Your task to perform on an android device: Go to battery settings Image 0: 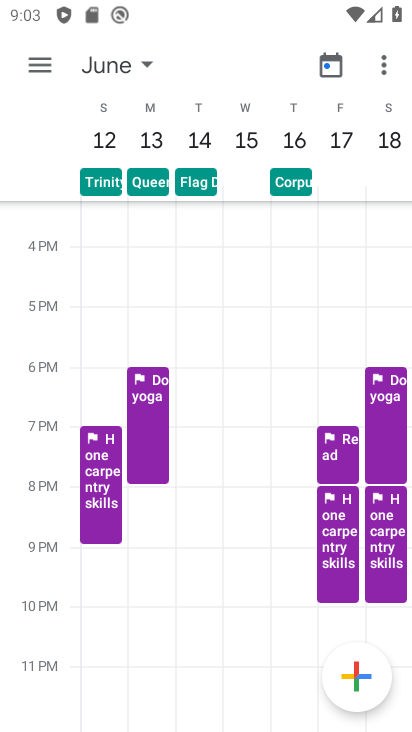
Step 0: press home button
Your task to perform on an android device: Go to battery settings Image 1: 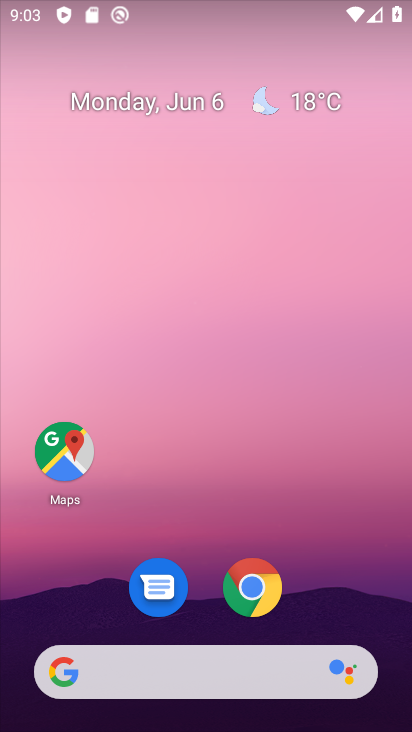
Step 1: drag from (306, 518) to (338, 153)
Your task to perform on an android device: Go to battery settings Image 2: 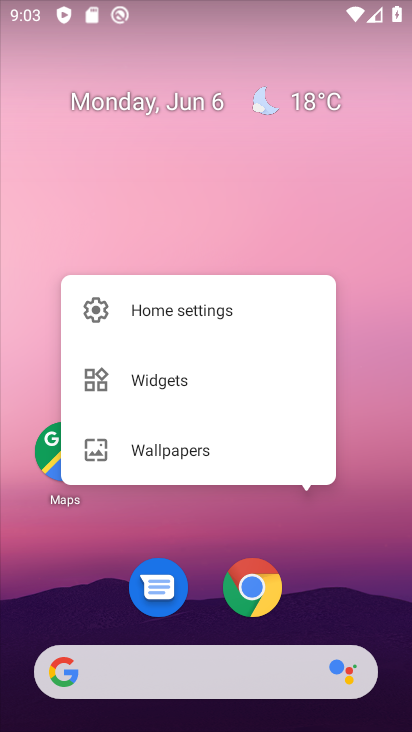
Step 2: click (386, 403)
Your task to perform on an android device: Go to battery settings Image 3: 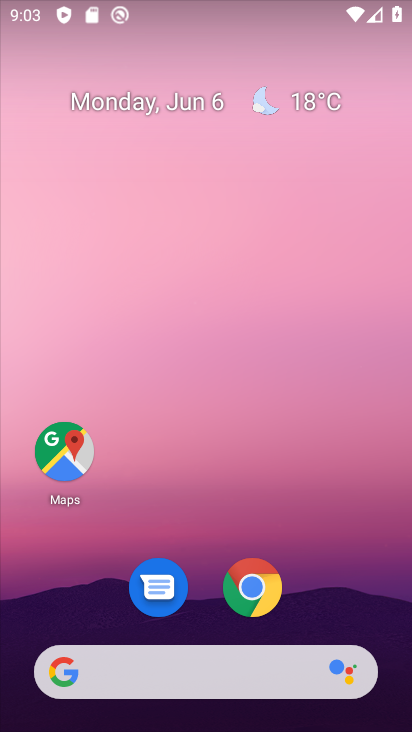
Step 3: drag from (319, 509) to (283, 112)
Your task to perform on an android device: Go to battery settings Image 4: 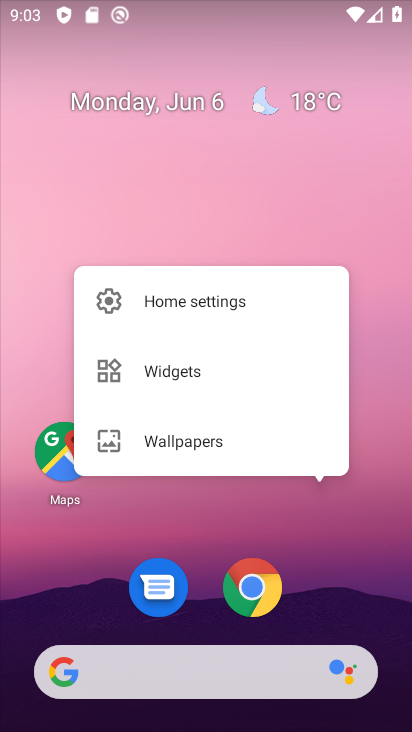
Step 4: click (262, 203)
Your task to perform on an android device: Go to battery settings Image 5: 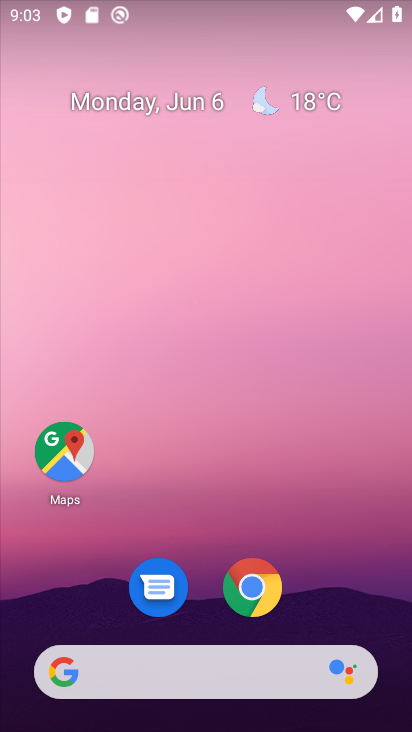
Step 5: drag from (343, 627) to (278, 107)
Your task to perform on an android device: Go to battery settings Image 6: 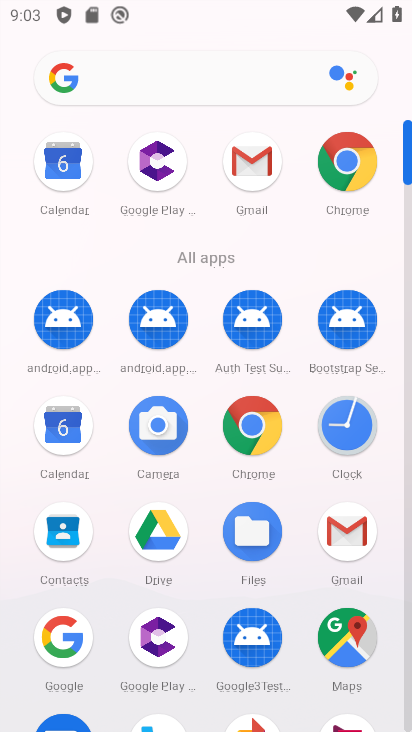
Step 6: drag from (210, 493) to (235, 104)
Your task to perform on an android device: Go to battery settings Image 7: 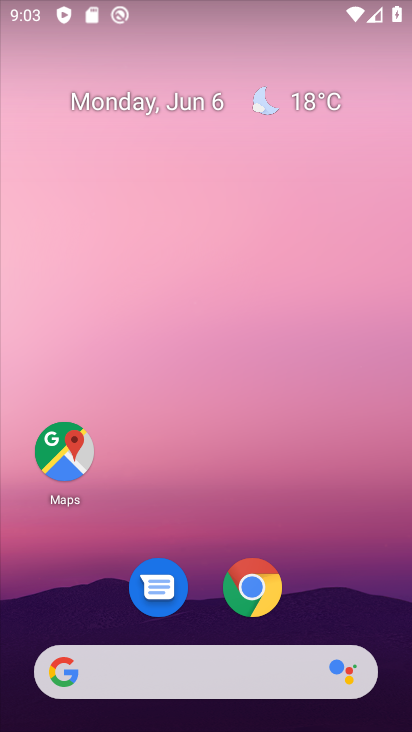
Step 7: drag from (326, 560) to (284, 82)
Your task to perform on an android device: Go to battery settings Image 8: 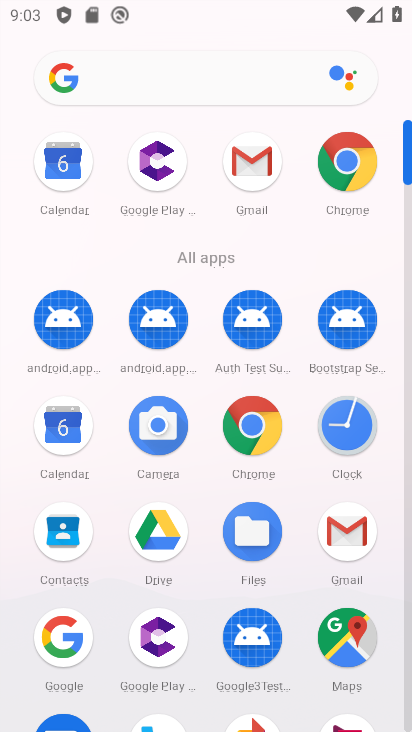
Step 8: drag from (204, 596) to (254, 141)
Your task to perform on an android device: Go to battery settings Image 9: 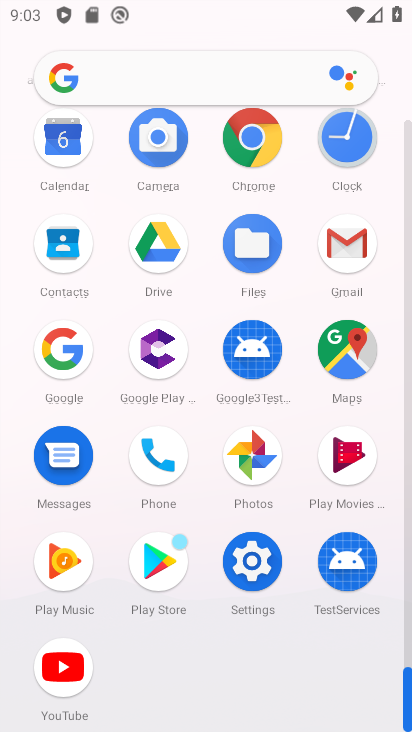
Step 9: click (243, 578)
Your task to perform on an android device: Go to battery settings Image 10: 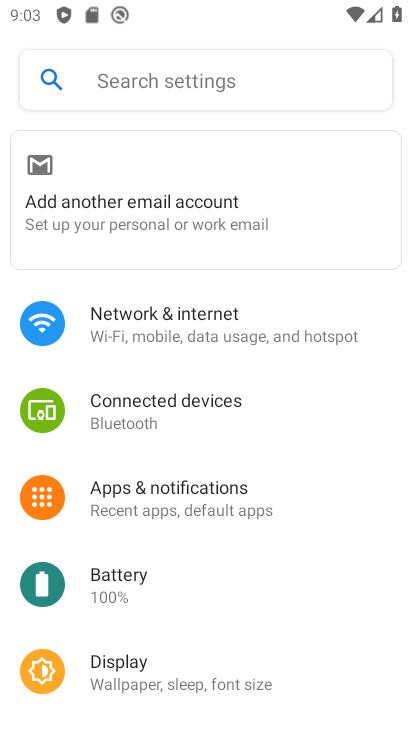
Step 10: drag from (226, 573) to (282, 142)
Your task to perform on an android device: Go to battery settings Image 11: 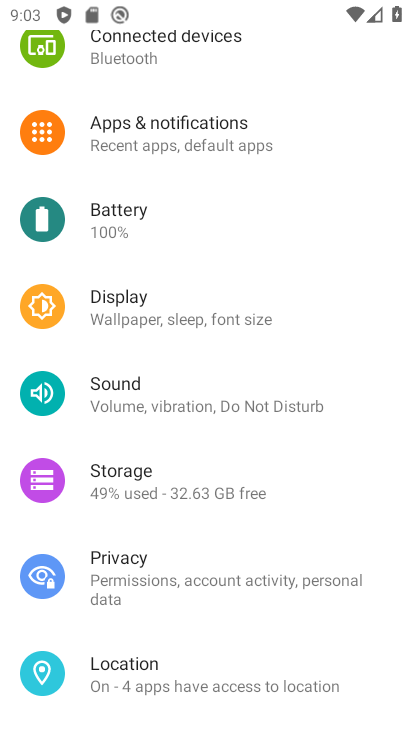
Step 11: click (94, 213)
Your task to perform on an android device: Go to battery settings Image 12: 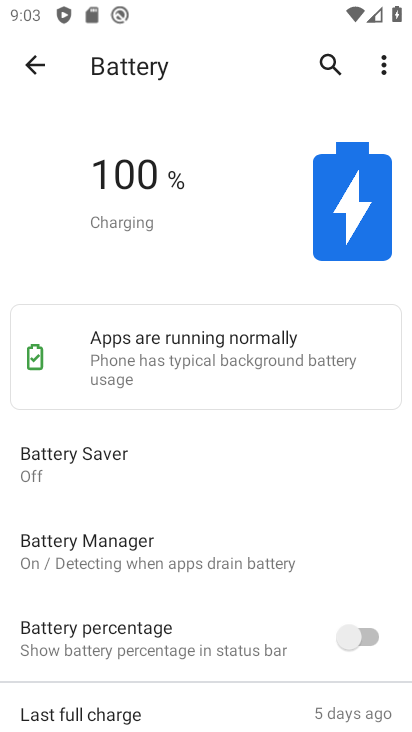
Step 12: task complete